Your task to perform on an android device: change your default location settings in chrome Image 0: 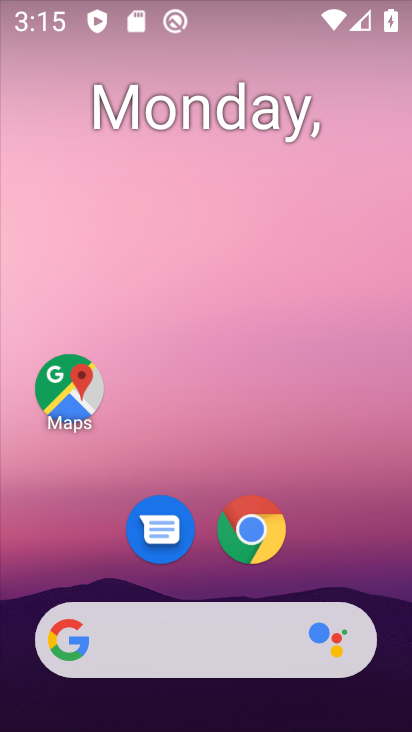
Step 0: drag from (226, 490) to (269, 132)
Your task to perform on an android device: change your default location settings in chrome Image 1: 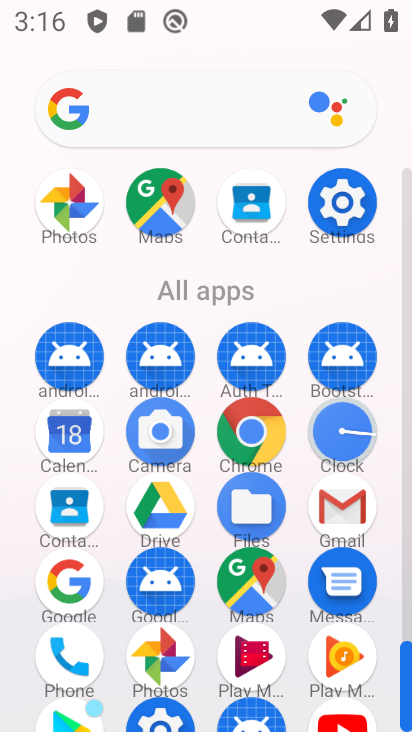
Step 1: click (255, 428)
Your task to perform on an android device: change your default location settings in chrome Image 2: 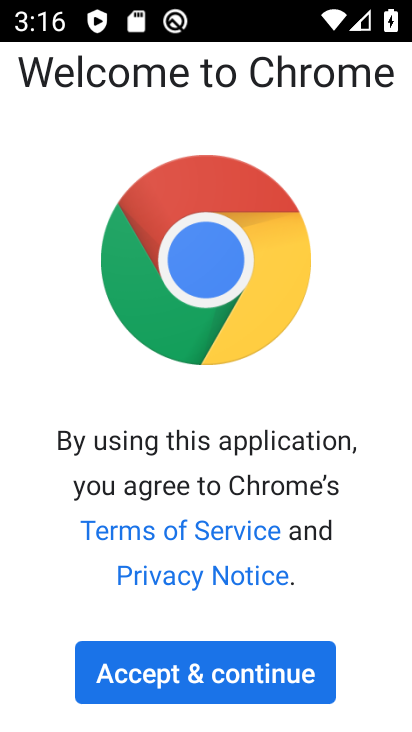
Step 2: click (226, 679)
Your task to perform on an android device: change your default location settings in chrome Image 3: 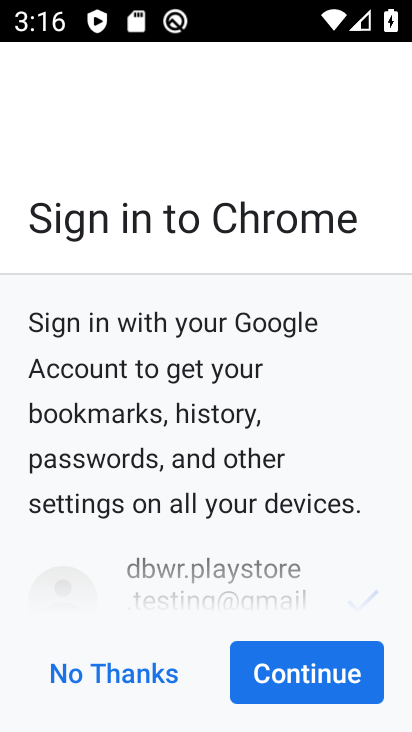
Step 3: click (269, 667)
Your task to perform on an android device: change your default location settings in chrome Image 4: 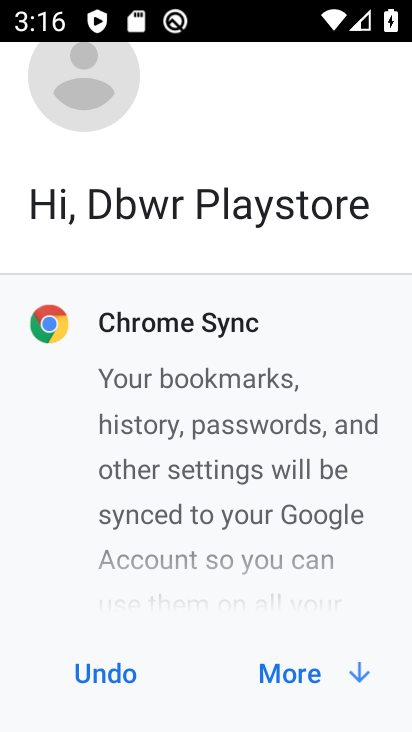
Step 4: click (289, 676)
Your task to perform on an android device: change your default location settings in chrome Image 5: 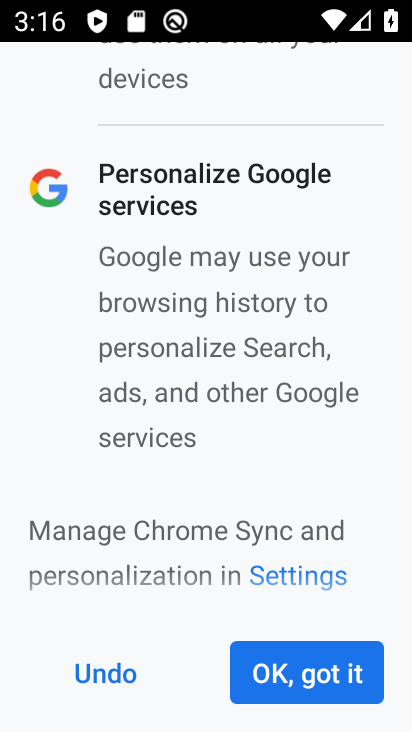
Step 5: click (290, 675)
Your task to perform on an android device: change your default location settings in chrome Image 6: 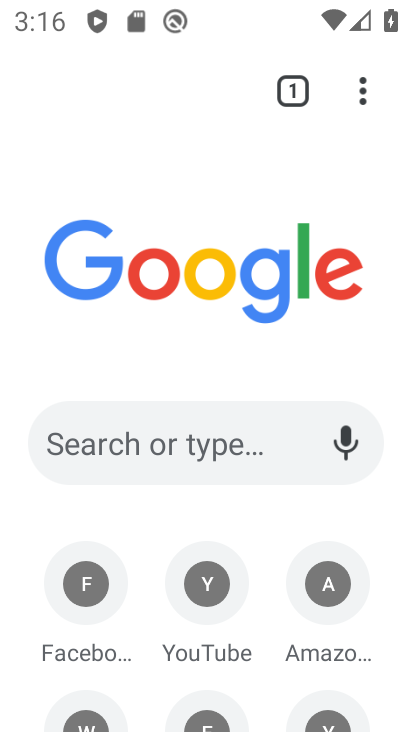
Step 6: click (355, 81)
Your task to perform on an android device: change your default location settings in chrome Image 7: 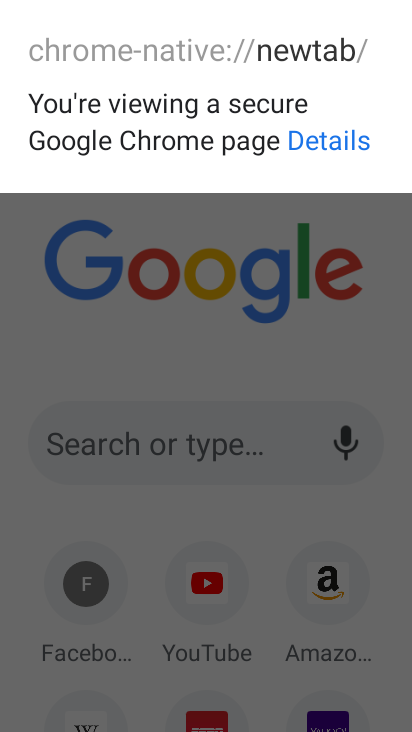
Step 7: click (292, 375)
Your task to perform on an android device: change your default location settings in chrome Image 8: 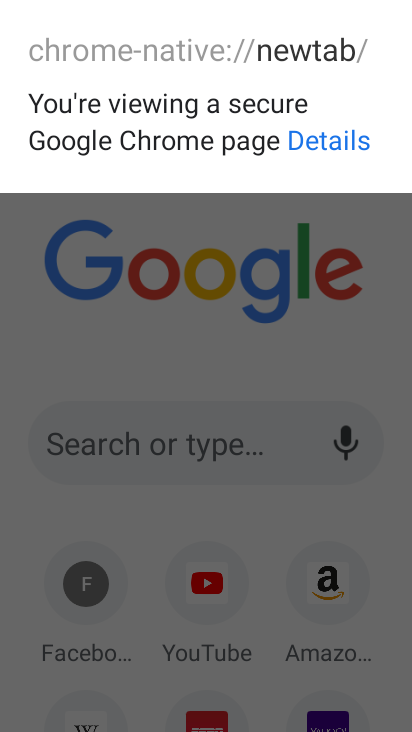
Step 8: click (292, 376)
Your task to perform on an android device: change your default location settings in chrome Image 9: 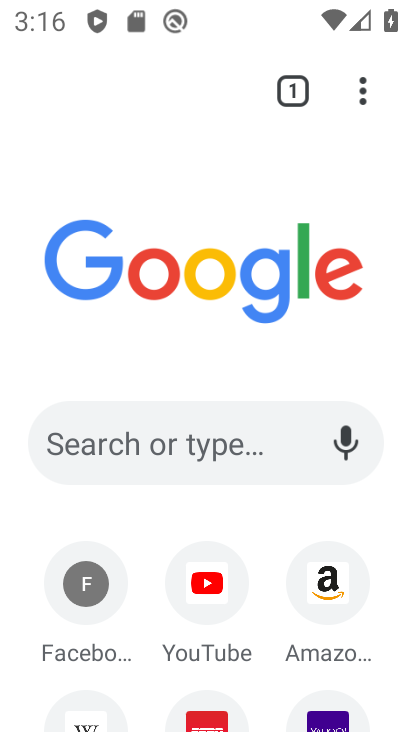
Step 9: click (365, 94)
Your task to perform on an android device: change your default location settings in chrome Image 10: 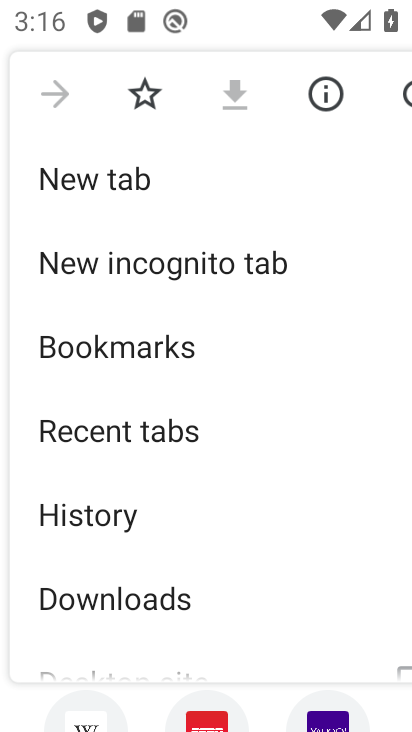
Step 10: drag from (124, 538) to (145, 305)
Your task to perform on an android device: change your default location settings in chrome Image 11: 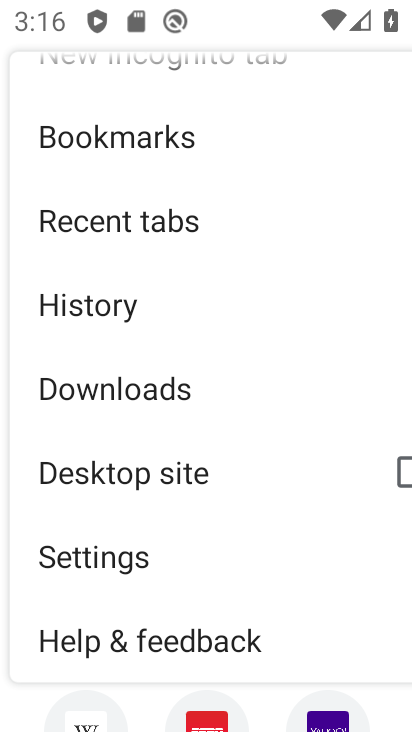
Step 11: click (129, 559)
Your task to perform on an android device: change your default location settings in chrome Image 12: 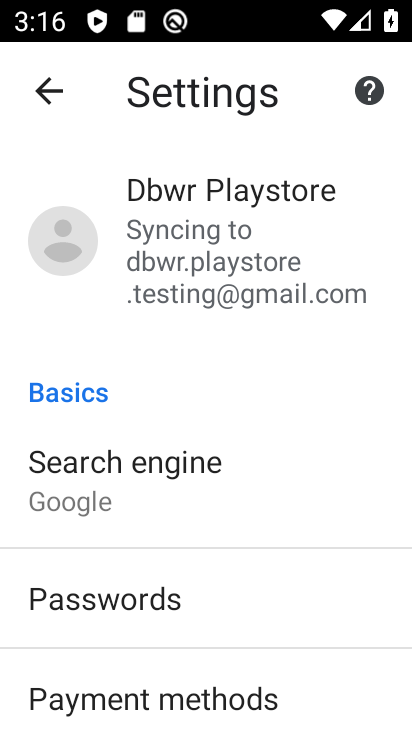
Step 12: drag from (153, 608) to (172, 388)
Your task to perform on an android device: change your default location settings in chrome Image 13: 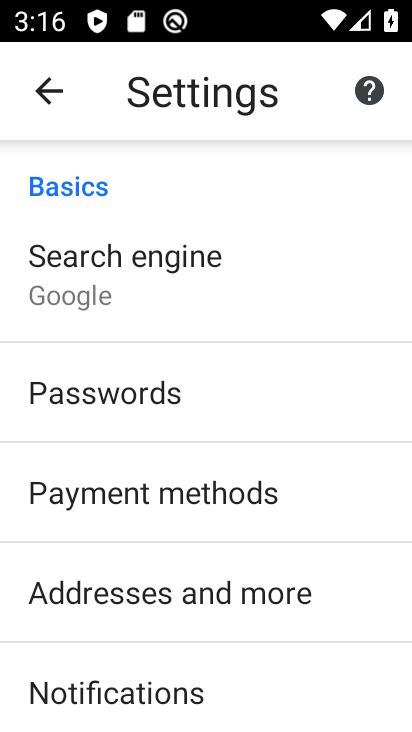
Step 13: drag from (175, 667) to (188, 313)
Your task to perform on an android device: change your default location settings in chrome Image 14: 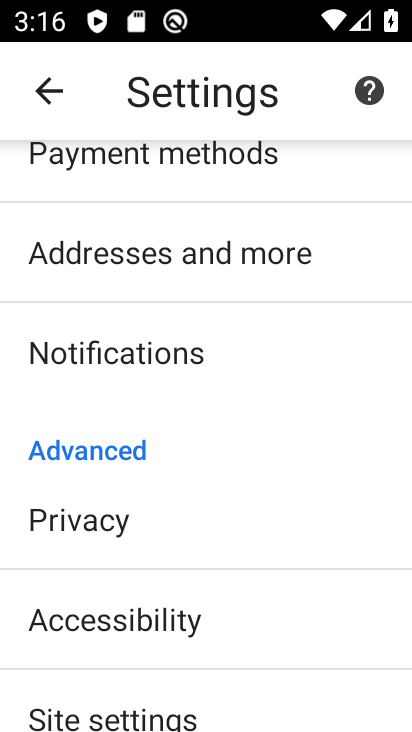
Step 14: drag from (156, 659) to (169, 384)
Your task to perform on an android device: change your default location settings in chrome Image 15: 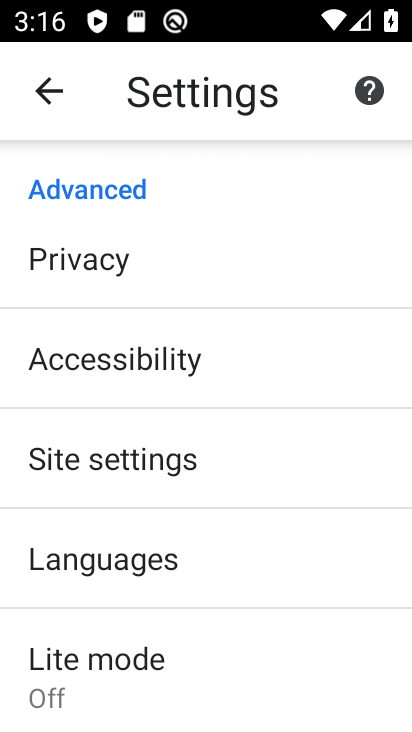
Step 15: click (146, 473)
Your task to perform on an android device: change your default location settings in chrome Image 16: 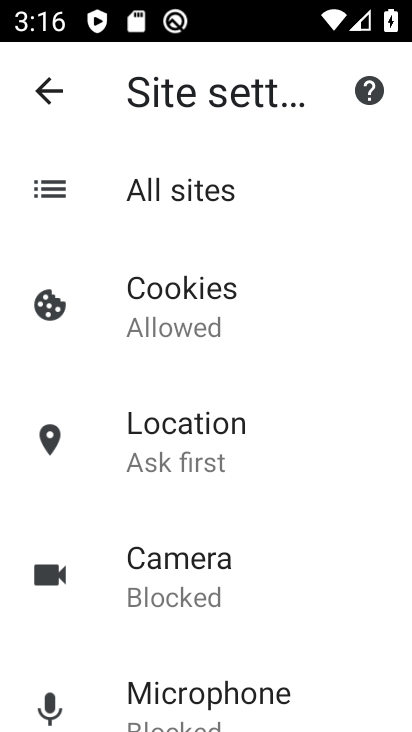
Step 16: click (147, 460)
Your task to perform on an android device: change your default location settings in chrome Image 17: 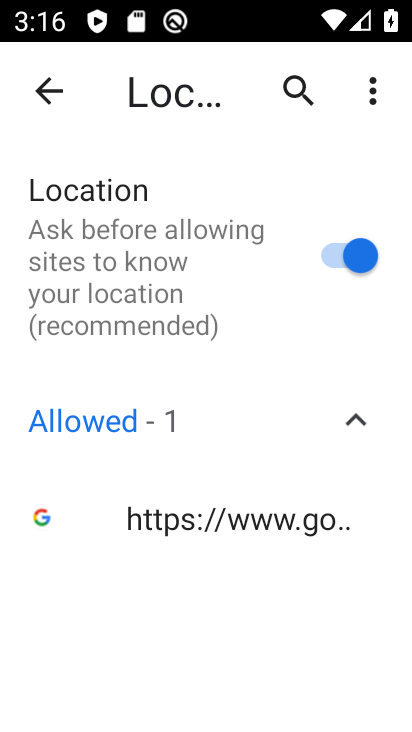
Step 17: click (336, 264)
Your task to perform on an android device: change your default location settings in chrome Image 18: 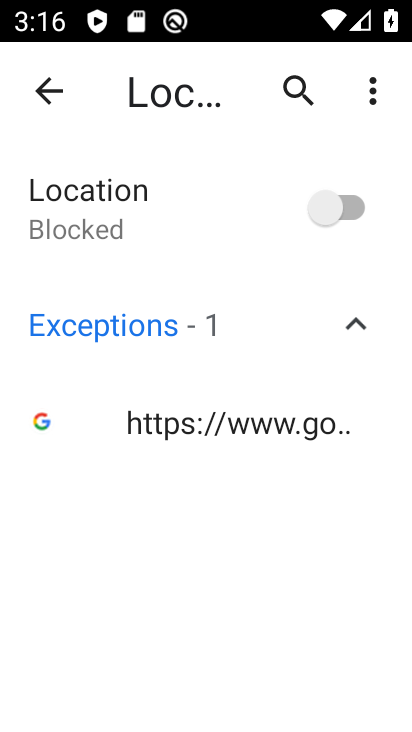
Step 18: task complete